Your task to perform on an android device: Open wifi settings Image 0: 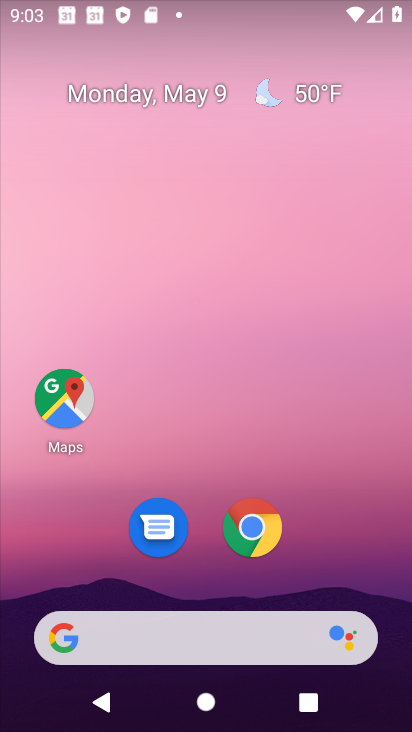
Step 0: drag from (233, 582) to (309, 0)
Your task to perform on an android device: Open wifi settings Image 1: 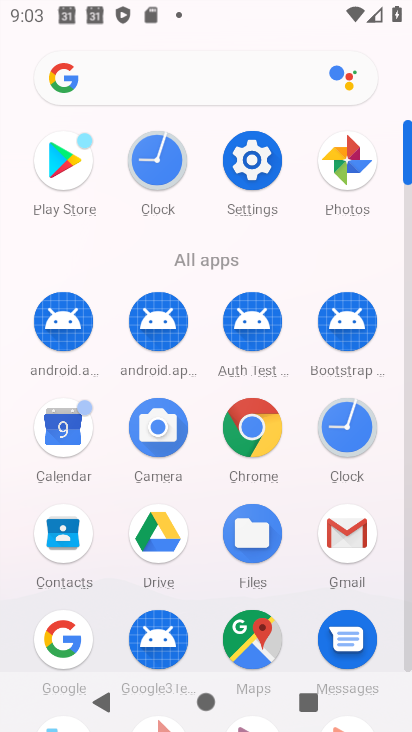
Step 1: click (256, 195)
Your task to perform on an android device: Open wifi settings Image 2: 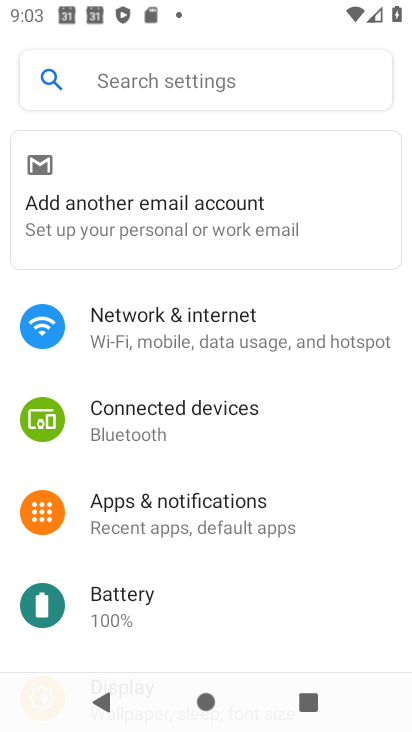
Step 2: click (202, 356)
Your task to perform on an android device: Open wifi settings Image 3: 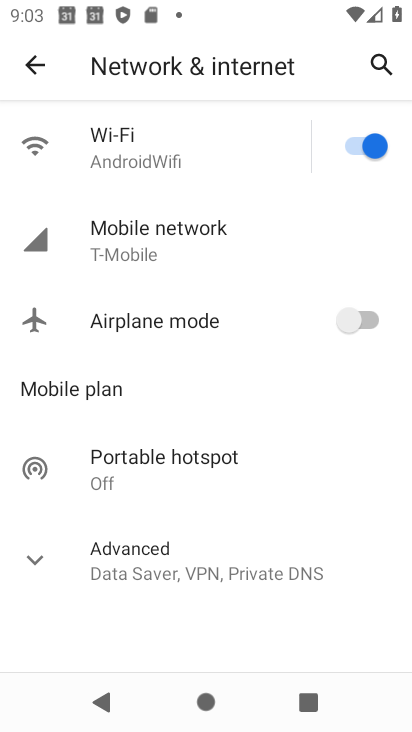
Step 3: click (169, 163)
Your task to perform on an android device: Open wifi settings Image 4: 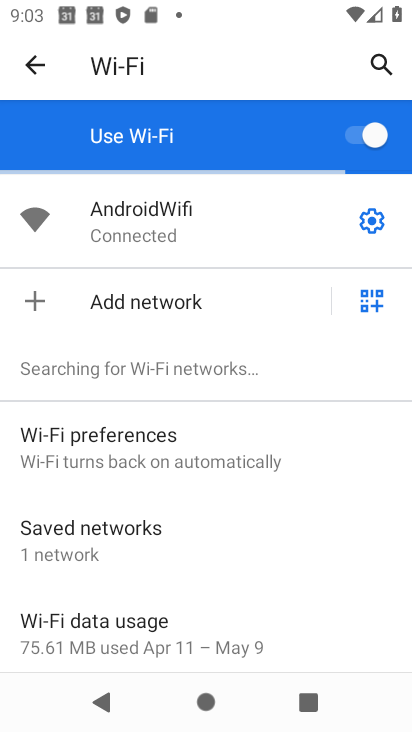
Step 4: task complete